Your task to perform on an android device: turn on showing notifications on the lock screen Image 0: 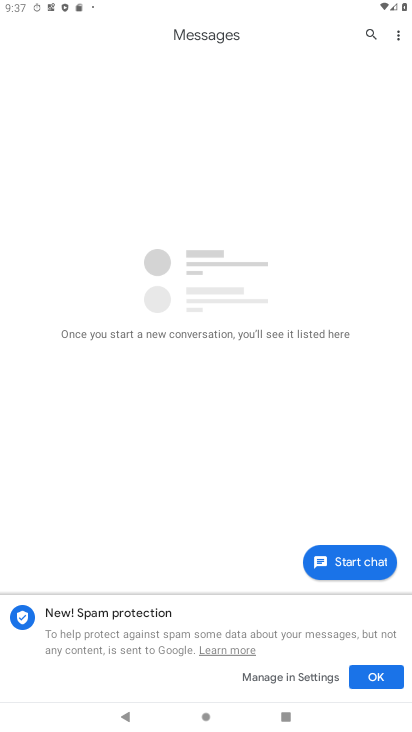
Step 0: press home button
Your task to perform on an android device: turn on showing notifications on the lock screen Image 1: 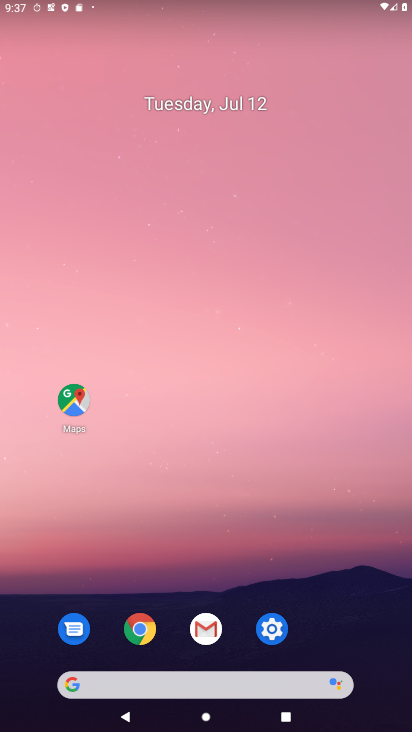
Step 1: drag from (229, 694) to (313, 147)
Your task to perform on an android device: turn on showing notifications on the lock screen Image 2: 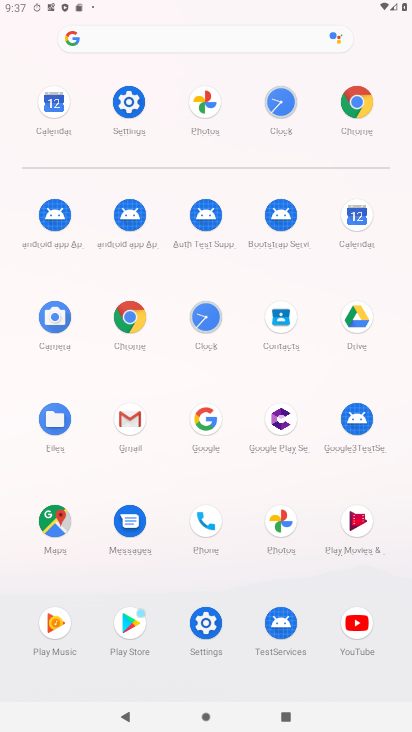
Step 2: click (138, 99)
Your task to perform on an android device: turn on showing notifications on the lock screen Image 3: 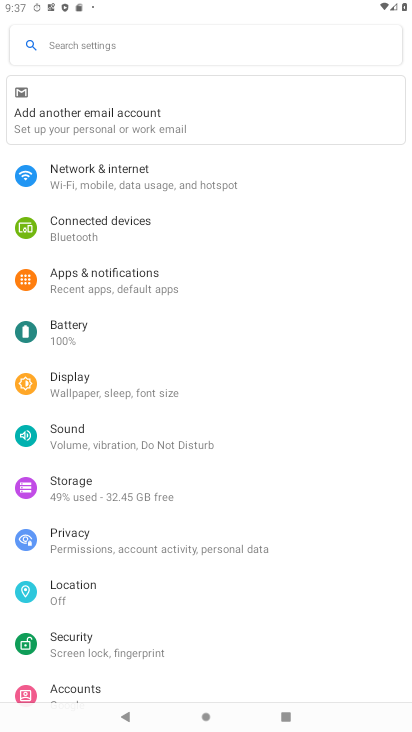
Step 3: click (129, 47)
Your task to perform on an android device: turn on showing notifications on the lock screen Image 4: 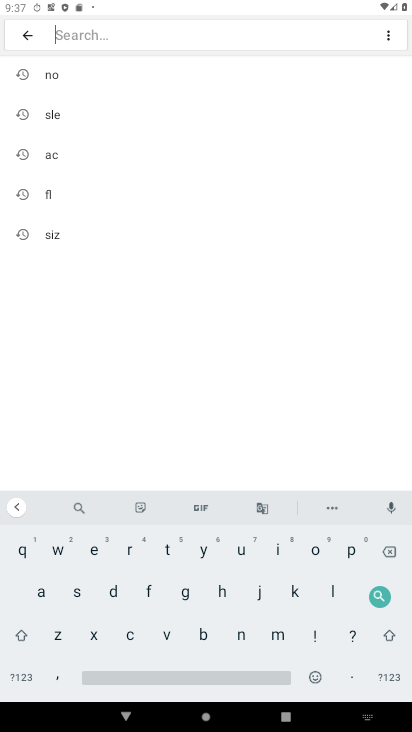
Step 4: click (80, 80)
Your task to perform on an android device: turn on showing notifications on the lock screen Image 5: 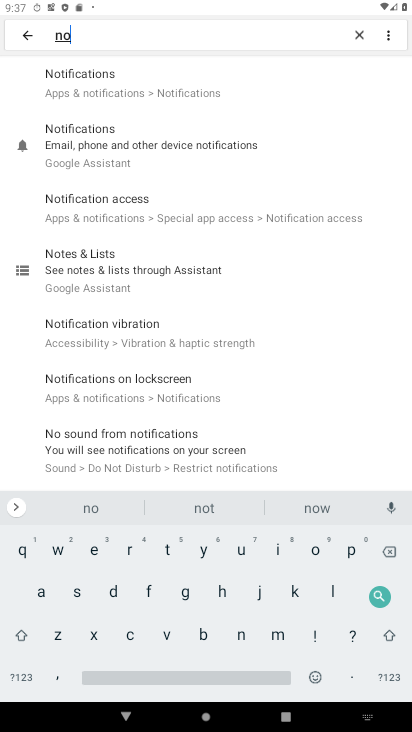
Step 5: click (125, 93)
Your task to perform on an android device: turn on showing notifications on the lock screen Image 6: 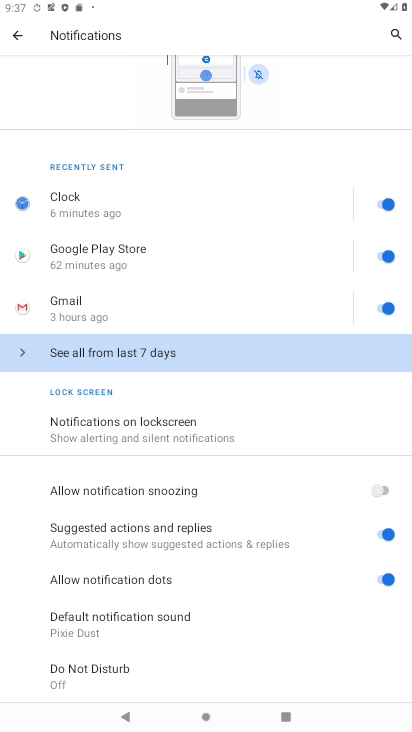
Step 6: click (79, 427)
Your task to perform on an android device: turn on showing notifications on the lock screen Image 7: 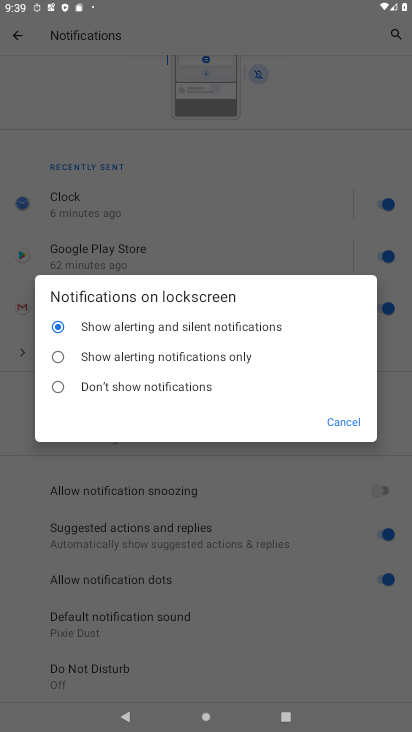
Step 7: task complete